Your task to perform on an android device: See recent photos Image 0: 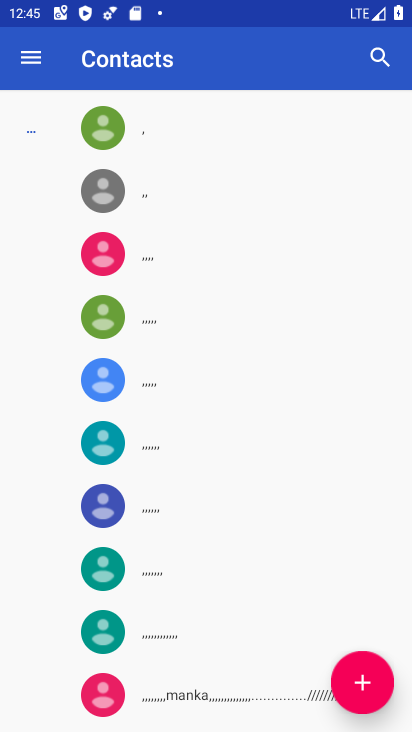
Step 0: press home button
Your task to perform on an android device: See recent photos Image 1: 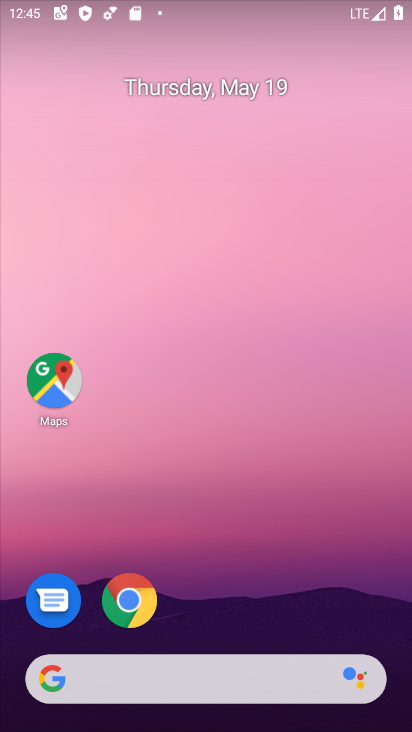
Step 1: drag from (211, 514) to (192, 61)
Your task to perform on an android device: See recent photos Image 2: 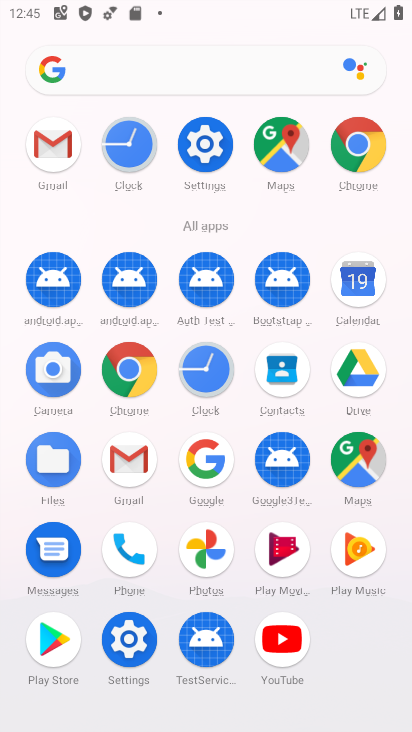
Step 2: click (210, 550)
Your task to perform on an android device: See recent photos Image 3: 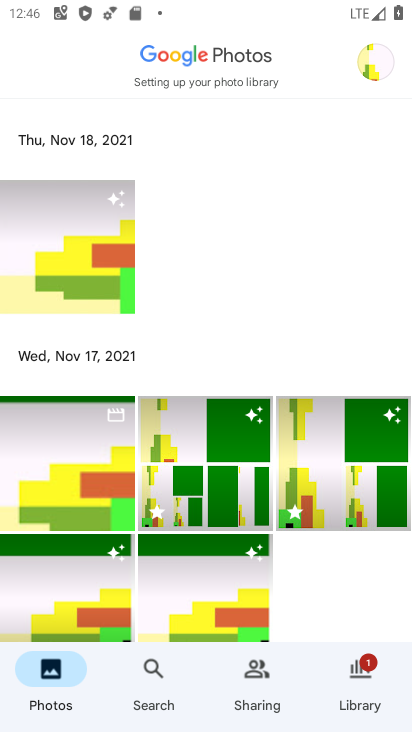
Step 3: task complete